Your task to perform on an android device: turn off smart reply in the gmail app Image 0: 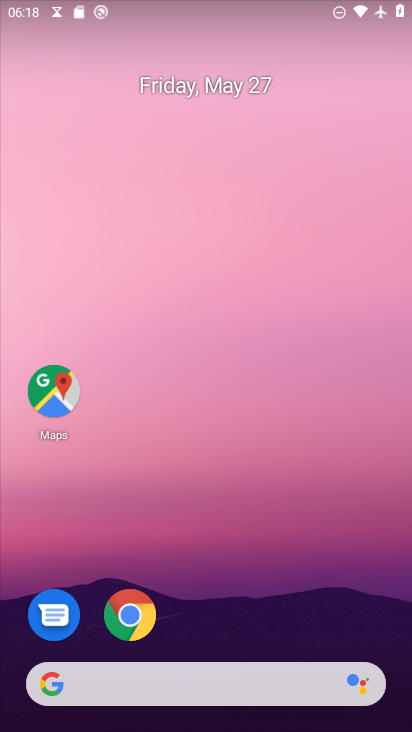
Step 0: drag from (289, 565) to (238, 53)
Your task to perform on an android device: turn off smart reply in the gmail app Image 1: 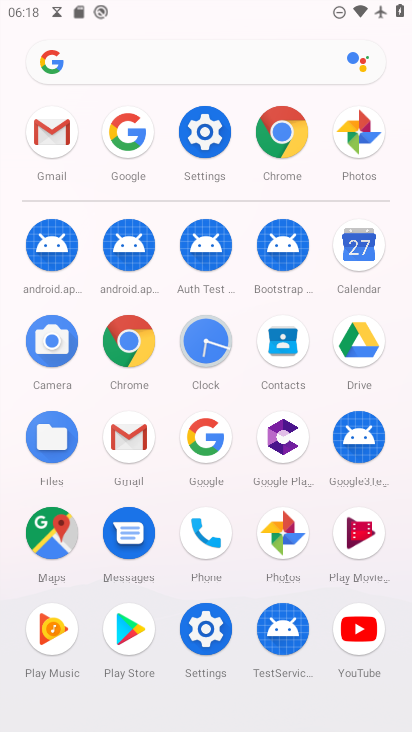
Step 1: click (130, 316)
Your task to perform on an android device: turn off smart reply in the gmail app Image 2: 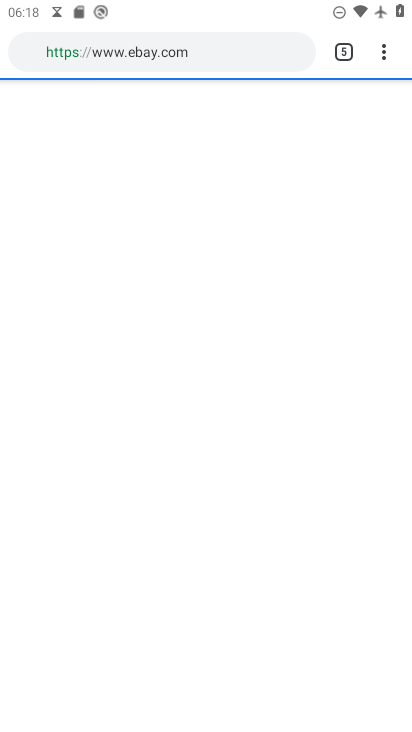
Step 2: click (382, 50)
Your task to perform on an android device: turn off smart reply in the gmail app Image 3: 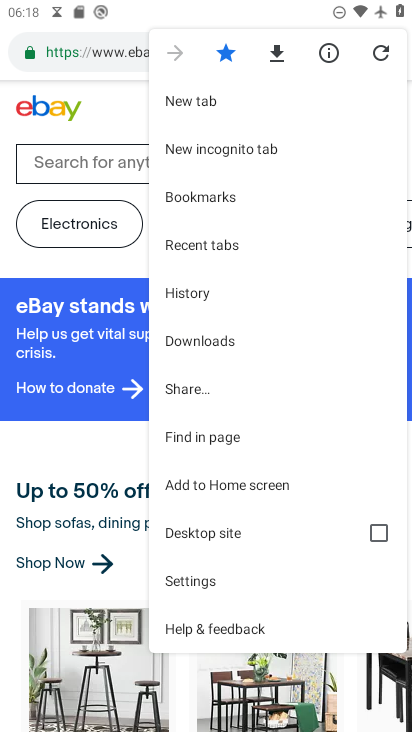
Step 3: press home button
Your task to perform on an android device: turn off smart reply in the gmail app Image 4: 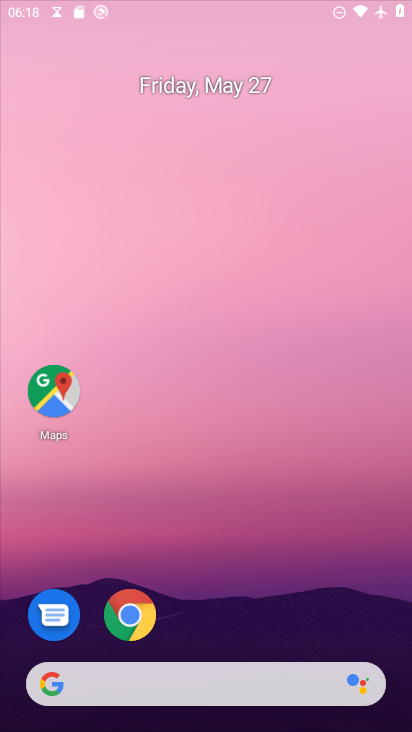
Step 4: drag from (278, 568) to (210, 1)
Your task to perform on an android device: turn off smart reply in the gmail app Image 5: 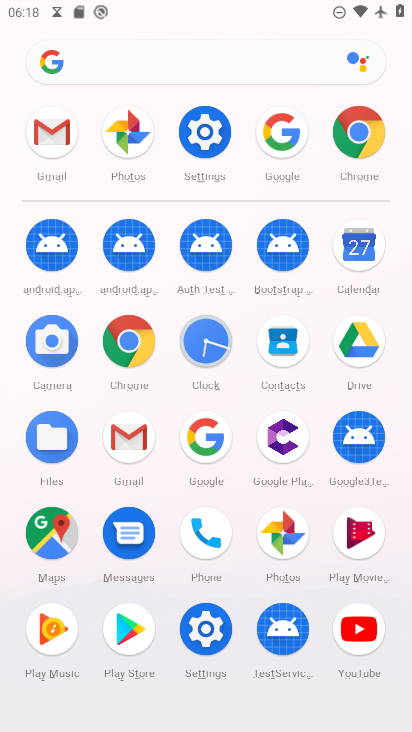
Step 5: click (125, 428)
Your task to perform on an android device: turn off smart reply in the gmail app Image 6: 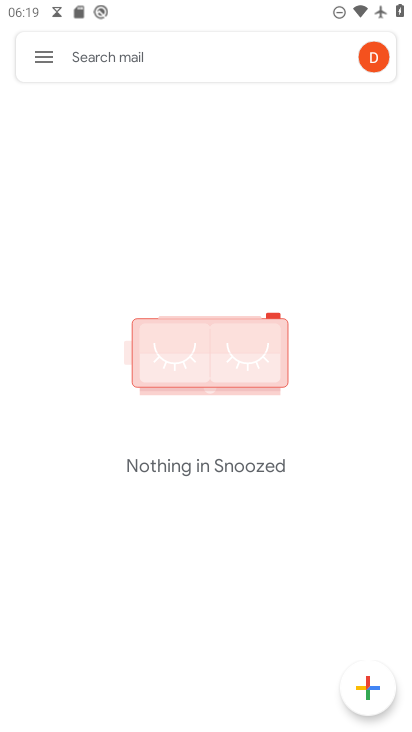
Step 6: click (58, 56)
Your task to perform on an android device: turn off smart reply in the gmail app Image 7: 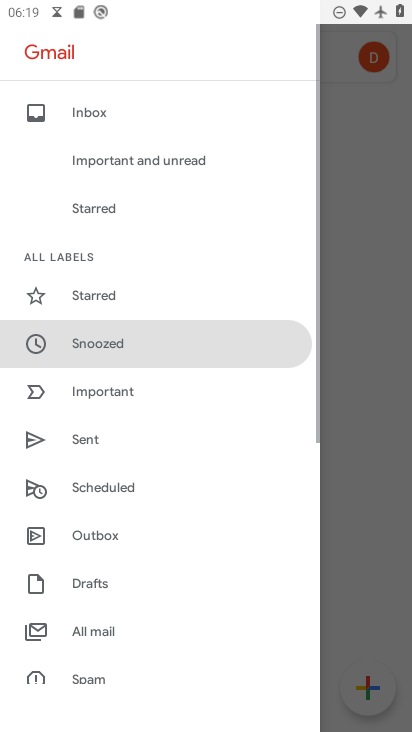
Step 7: drag from (198, 617) to (188, 21)
Your task to perform on an android device: turn off smart reply in the gmail app Image 8: 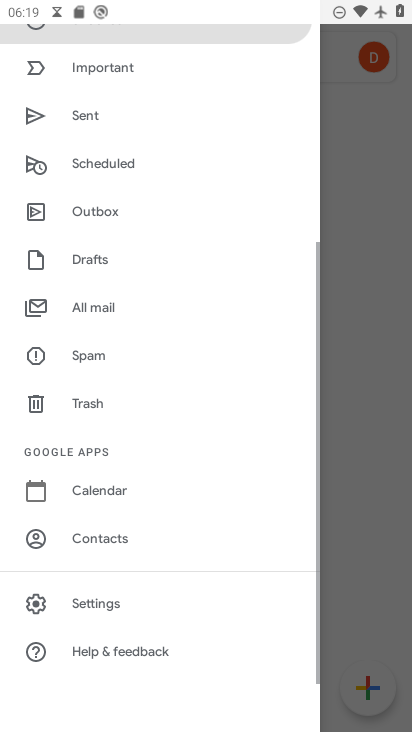
Step 8: click (136, 605)
Your task to perform on an android device: turn off smart reply in the gmail app Image 9: 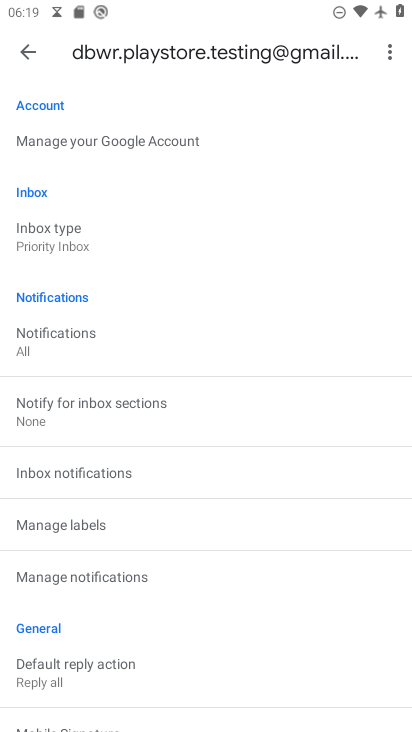
Step 9: drag from (175, 666) to (223, 13)
Your task to perform on an android device: turn off smart reply in the gmail app Image 10: 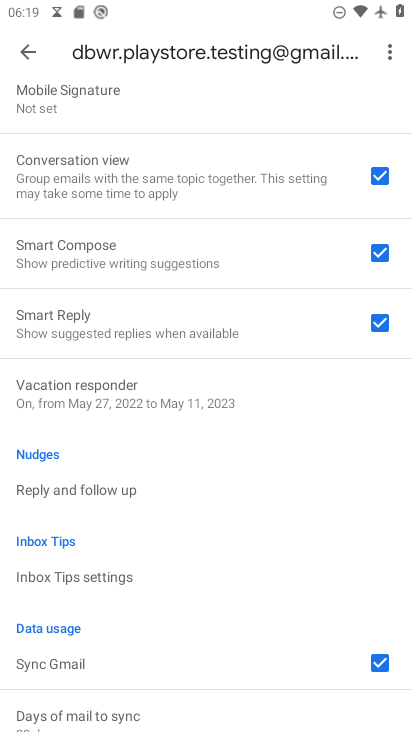
Step 10: drag from (255, 637) to (222, 484)
Your task to perform on an android device: turn off smart reply in the gmail app Image 11: 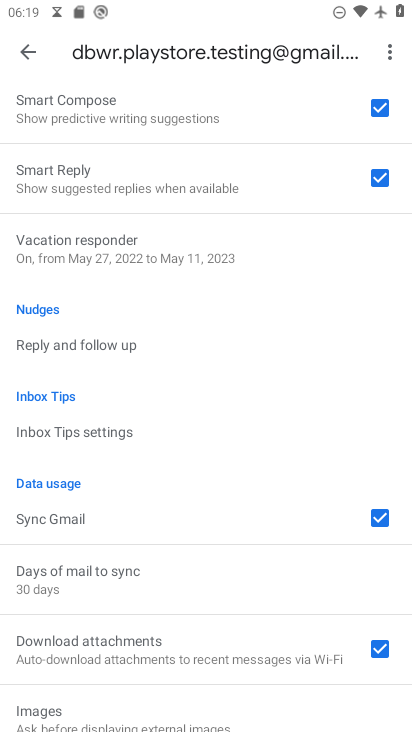
Step 11: click (384, 174)
Your task to perform on an android device: turn off smart reply in the gmail app Image 12: 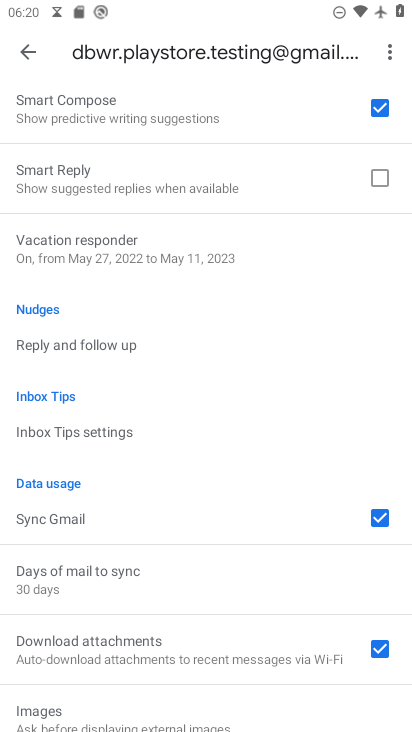
Step 12: task complete